Your task to perform on an android device: turn vacation reply on in the gmail app Image 0: 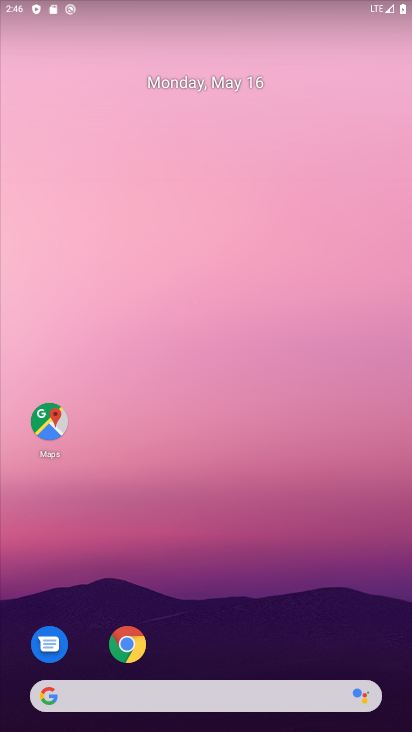
Step 0: drag from (121, 680) to (223, 175)
Your task to perform on an android device: turn vacation reply on in the gmail app Image 1: 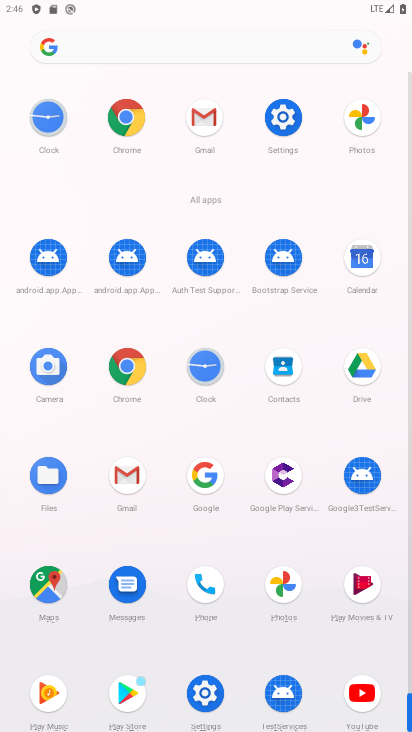
Step 1: drag from (246, 579) to (273, 356)
Your task to perform on an android device: turn vacation reply on in the gmail app Image 2: 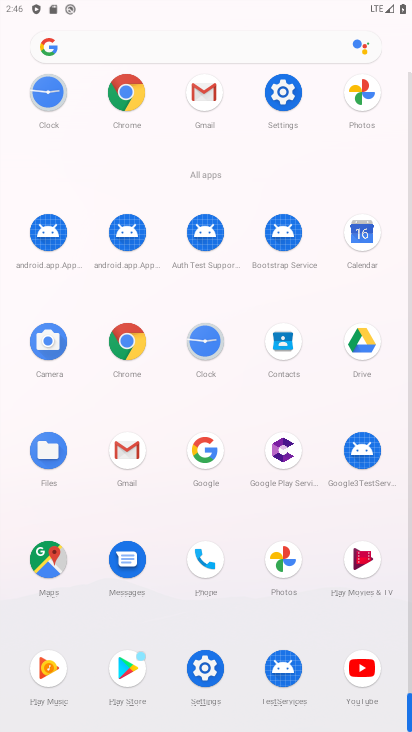
Step 2: click (129, 436)
Your task to perform on an android device: turn vacation reply on in the gmail app Image 3: 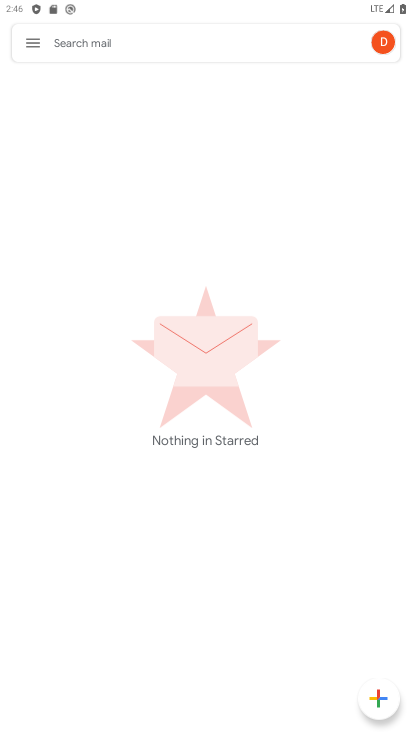
Step 3: click (45, 40)
Your task to perform on an android device: turn vacation reply on in the gmail app Image 4: 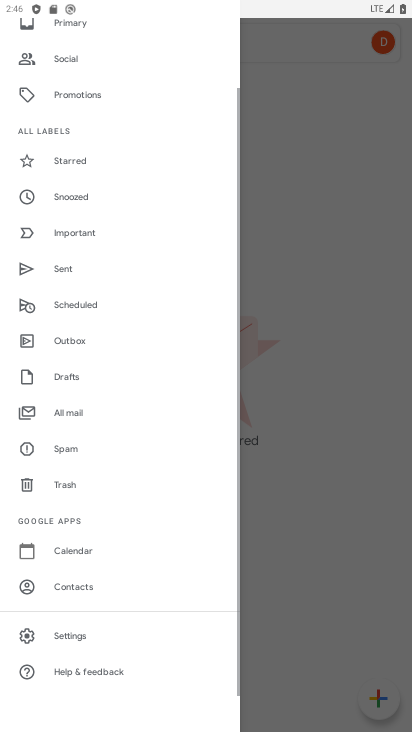
Step 4: drag from (113, 623) to (156, 353)
Your task to perform on an android device: turn vacation reply on in the gmail app Image 5: 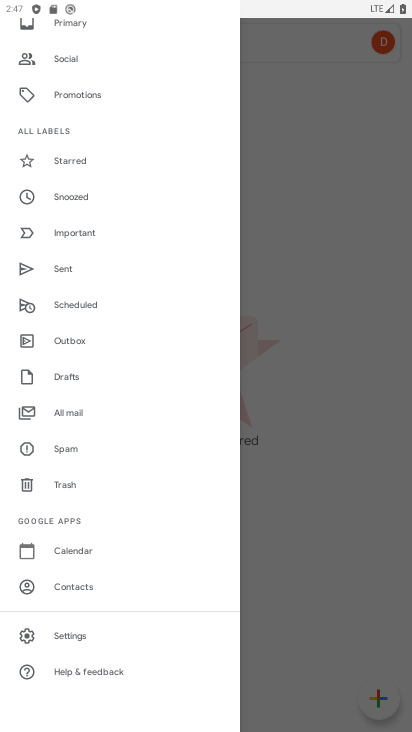
Step 5: click (106, 640)
Your task to perform on an android device: turn vacation reply on in the gmail app Image 6: 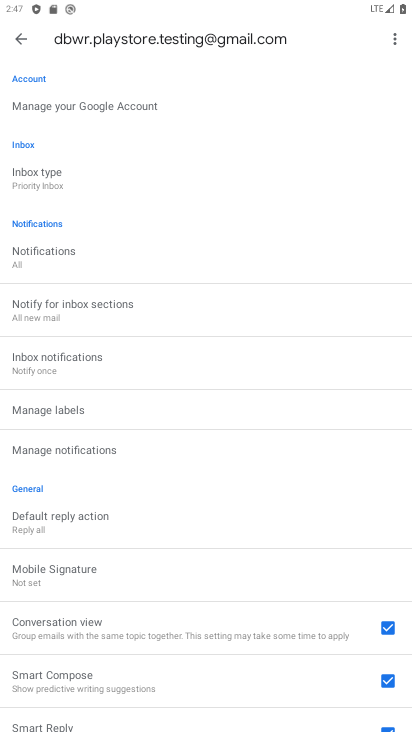
Step 6: drag from (134, 730) to (234, 381)
Your task to perform on an android device: turn vacation reply on in the gmail app Image 7: 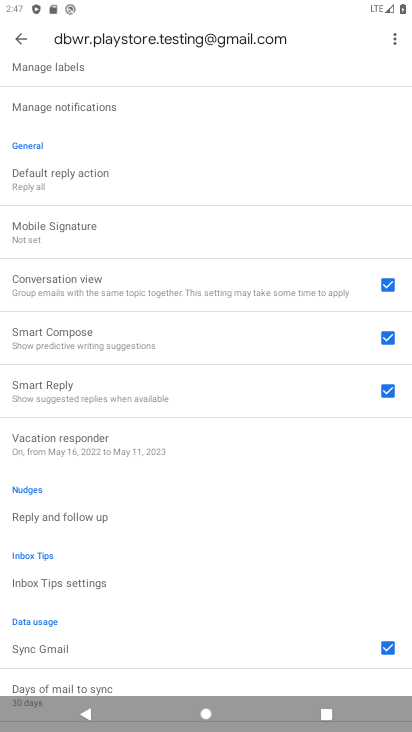
Step 7: click (162, 463)
Your task to perform on an android device: turn vacation reply on in the gmail app Image 8: 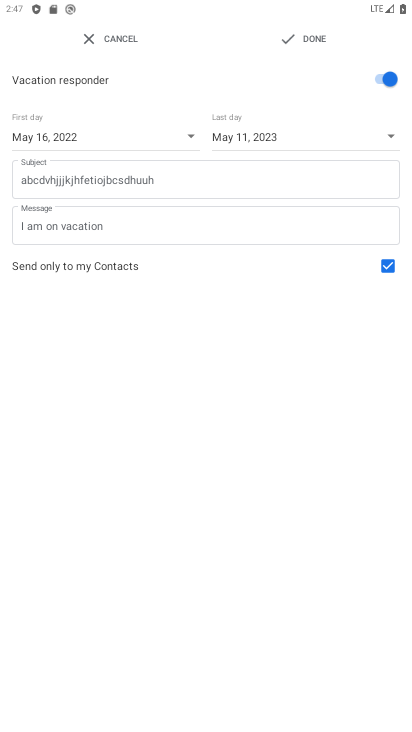
Step 8: task complete